Your task to perform on an android device: check battery use Image 0: 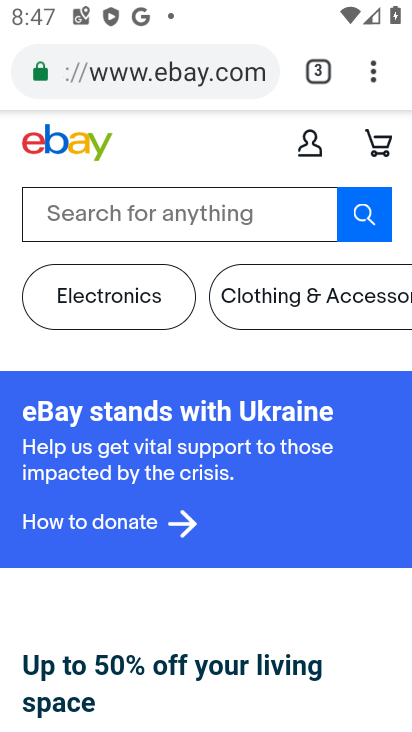
Step 0: press home button
Your task to perform on an android device: check battery use Image 1: 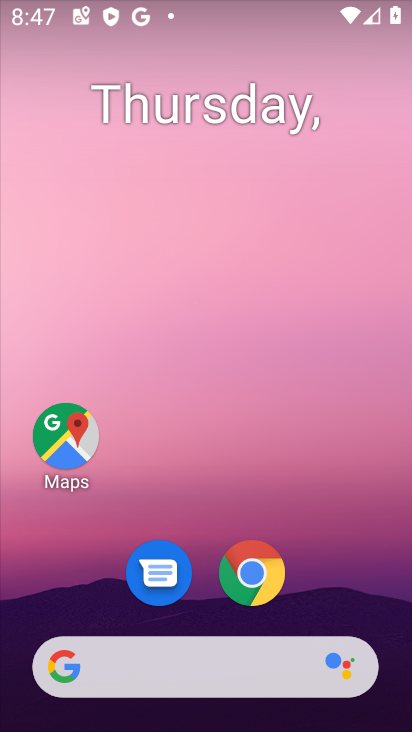
Step 1: drag from (352, 575) to (369, 100)
Your task to perform on an android device: check battery use Image 2: 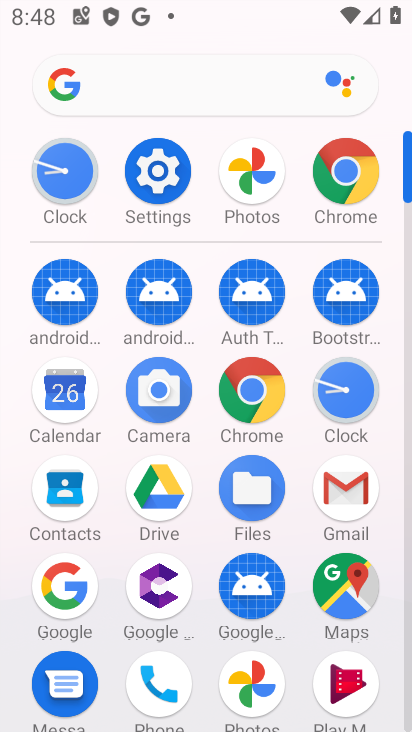
Step 2: drag from (196, 618) to (217, 357)
Your task to perform on an android device: check battery use Image 3: 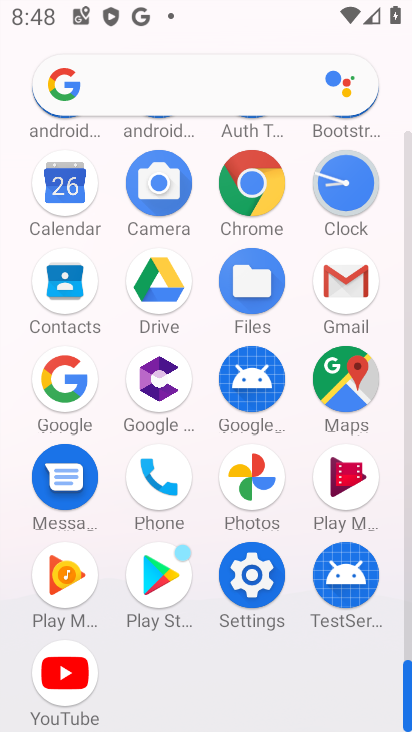
Step 3: click (255, 563)
Your task to perform on an android device: check battery use Image 4: 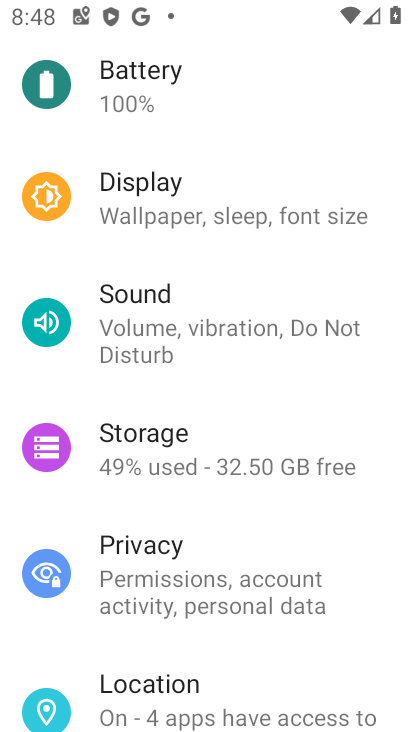
Step 4: drag from (271, 241) to (275, 601)
Your task to perform on an android device: check battery use Image 5: 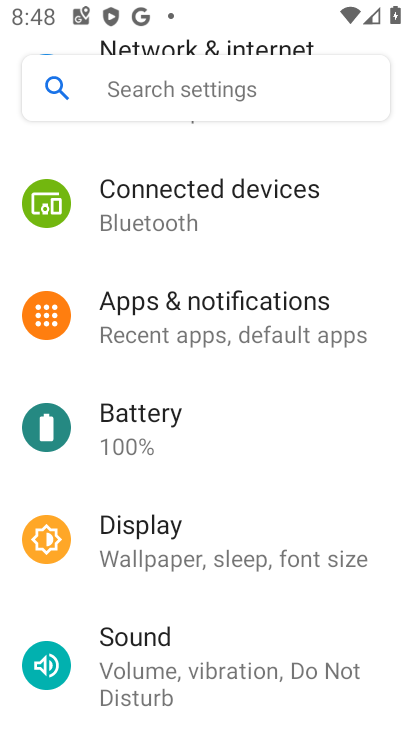
Step 5: click (166, 449)
Your task to perform on an android device: check battery use Image 6: 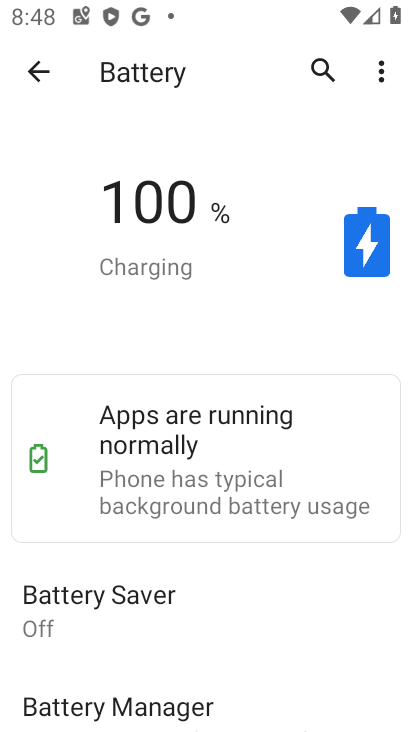
Step 6: task complete